Your task to perform on an android device: Do I have any events tomorrow? Image 0: 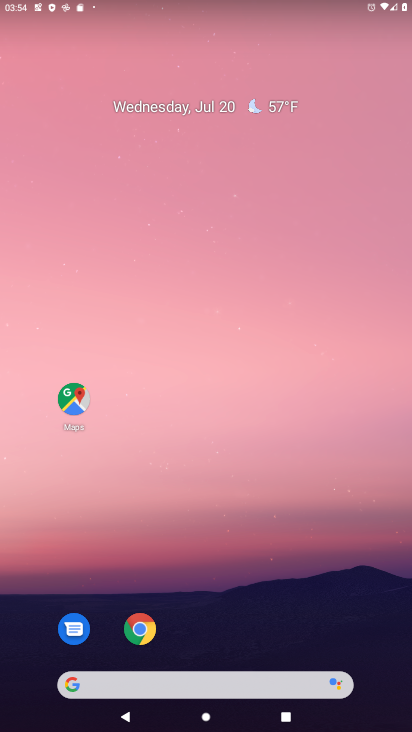
Step 0: drag from (356, 626) to (335, 105)
Your task to perform on an android device: Do I have any events tomorrow? Image 1: 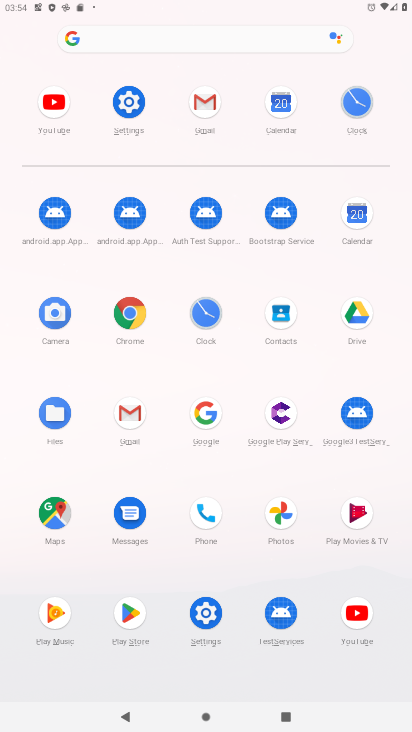
Step 1: click (356, 212)
Your task to perform on an android device: Do I have any events tomorrow? Image 2: 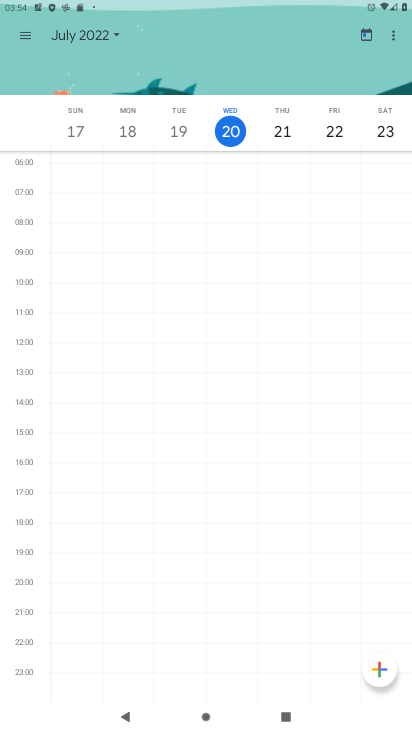
Step 2: click (21, 31)
Your task to perform on an android device: Do I have any events tomorrow? Image 3: 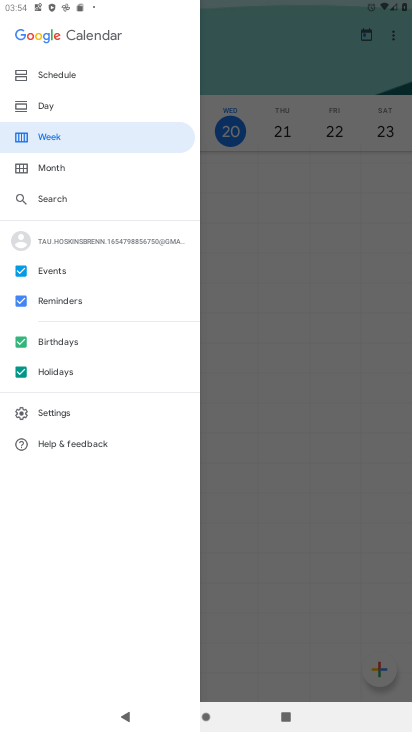
Step 3: click (44, 103)
Your task to perform on an android device: Do I have any events tomorrow? Image 4: 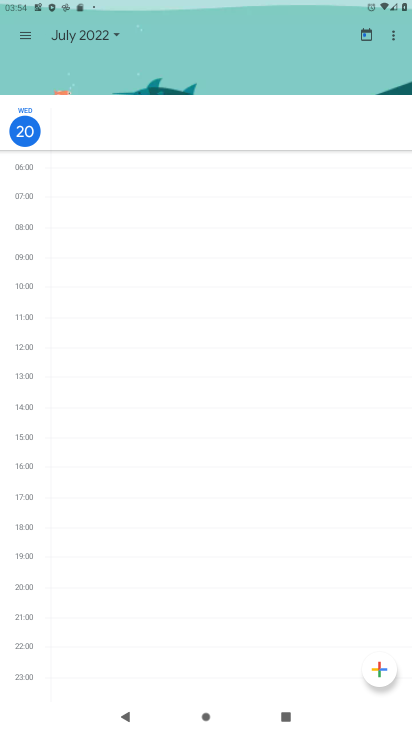
Step 4: click (114, 32)
Your task to perform on an android device: Do I have any events tomorrow? Image 5: 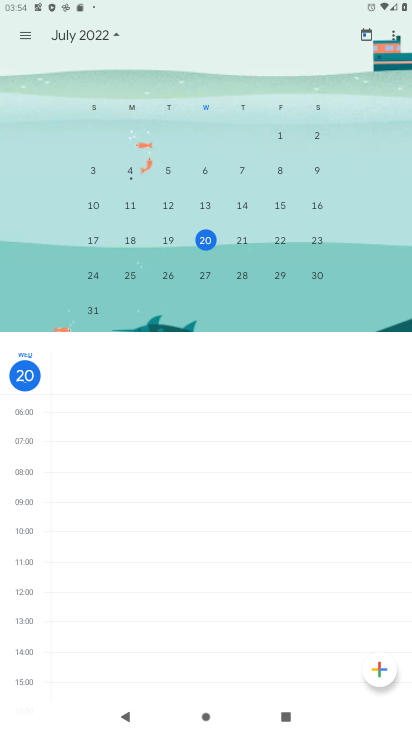
Step 5: click (240, 237)
Your task to perform on an android device: Do I have any events tomorrow? Image 6: 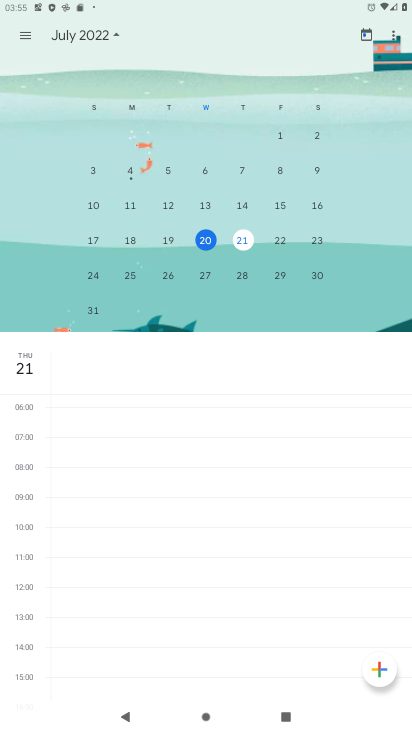
Step 6: task complete